Your task to perform on an android device: toggle pop-ups in chrome Image 0: 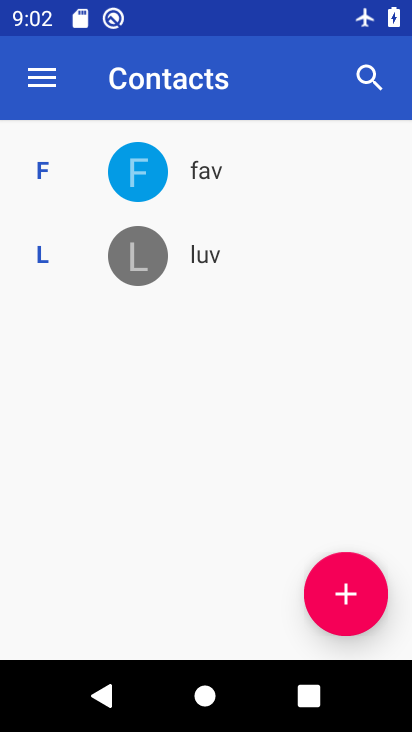
Step 0: press home button
Your task to perform on an android device: toggle pop-ups in chrome Image 1: 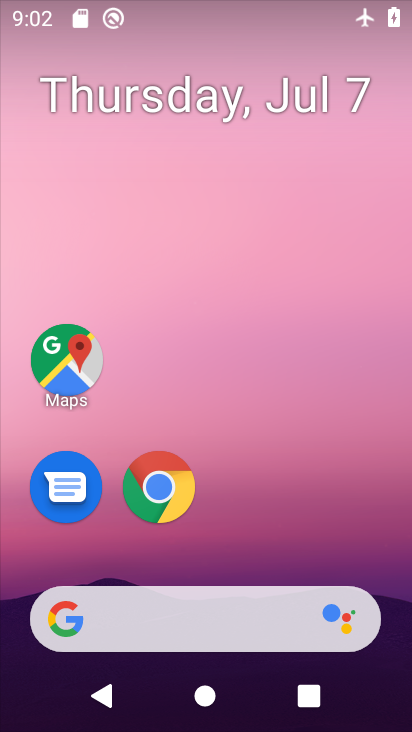
Step 1: drag from (366, 495) to (350, 128)
Your task to perform on an android device: toggle pop-ups in chrome Image 2: 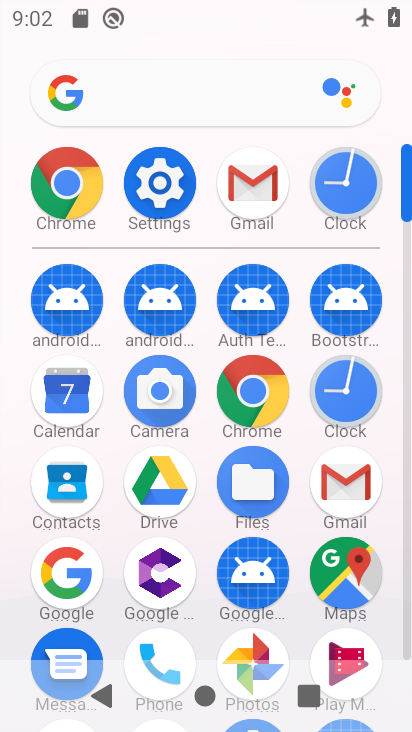
Step 2: click (257, 391)
Your task to perform on an android device: toggle pop-ups in chrome Image 3: 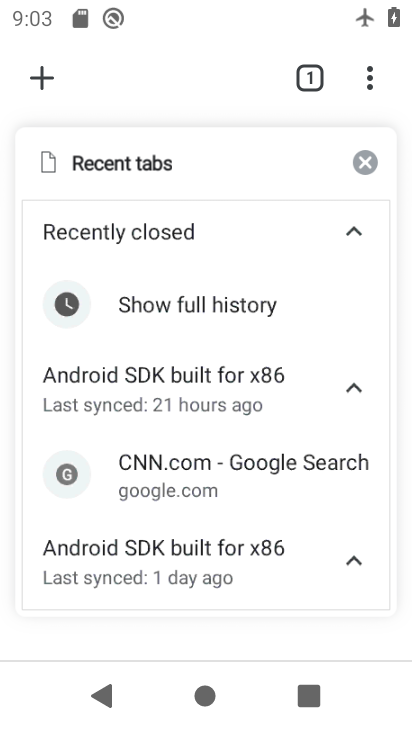
Step 3: click (371, 80)
Your task to perform on an android device: toggle pop-ups in chrome Image 4: 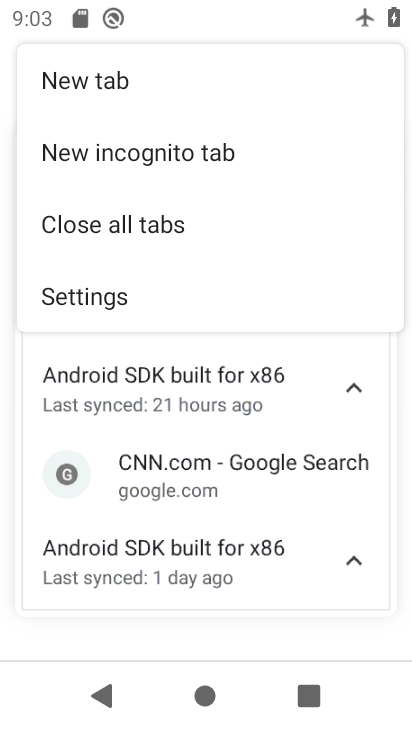
Step 4: click (185, 307)
Your task to perform on an android device: toggle pop-ups in chrome Image 5: 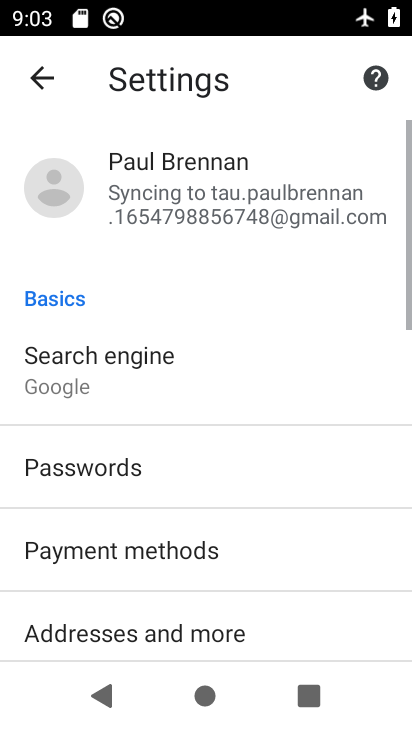
Step 5: drag from (271, 443) to (278, 337)
Your task to perform on an android device: toggle pop-ups in chrome Image 6: 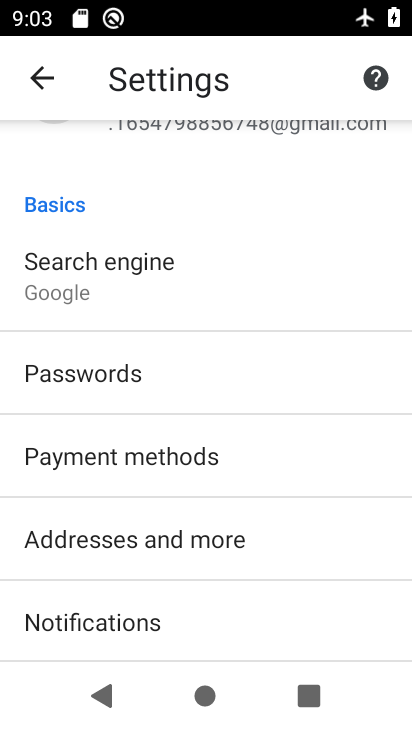
Step 6: drag from (312, 480) to (314, 396)
Your task to perform on an android device: toggle pop-ups in chrome Image 7: 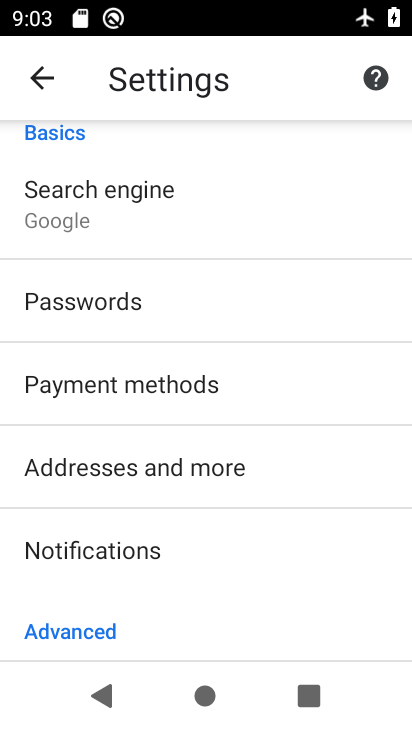
Step 7: drag from (331, 469) to (331, 357)
Your task to perform on an android device: toggle pop-ups in chrome Image 8: 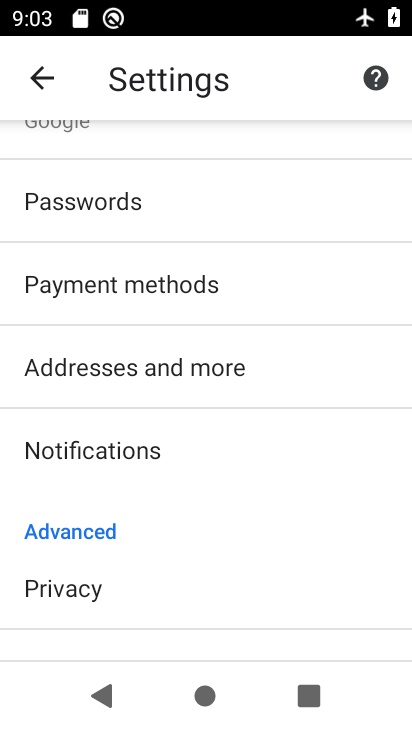
Step 8: drag from (348, 477) to (349, 392)
Your task to perform on an android device: toggle pop-ups in chrome Image 9: 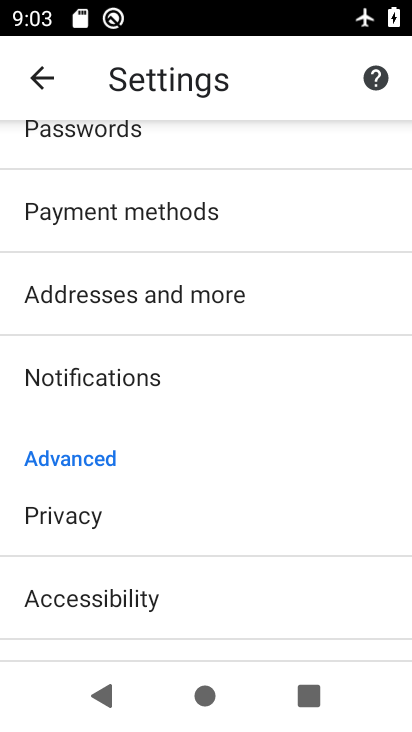
Step 9: drag from (351, 485) to (350, 398)
Your task to perform on an android device: toggle pop-ups in chrome Image 10: 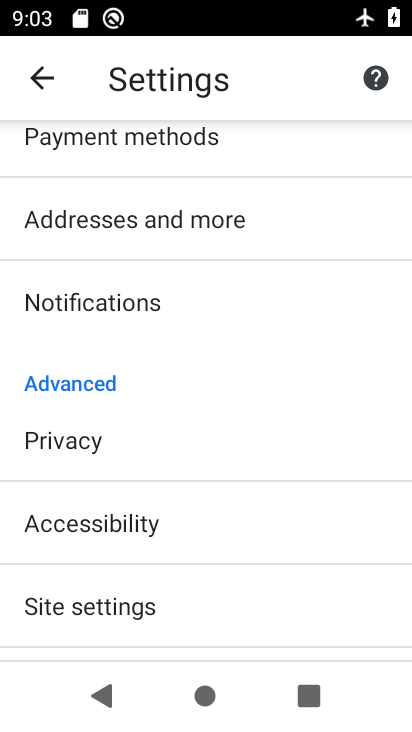
Step 10: drag from (321, 481) to (320, 384)
Your task to perform on an android device: toggle pop-ups in chrome Image 11: 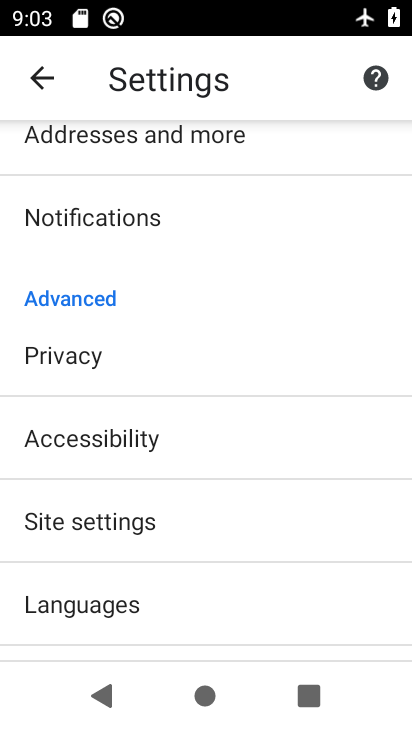
Step 11: drag from (316, 489) to (313, 366)
Your task to perform on an android device: toggle pop-ups in chrome Image 12: 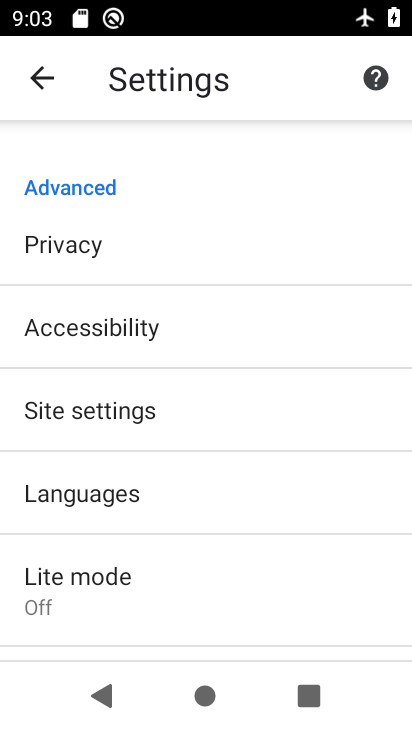
Step 12: drag from (320, 480) to (319, 239)
Your task to perform on an android device: toggle pop-ups in chrome Image 13: 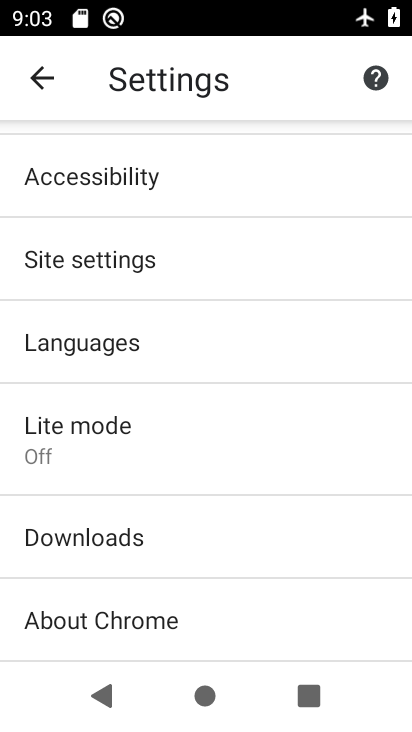
Step 13: click (286, 257)
Your task to perform on an android device: toggle pop-ups in chrome Image 14: 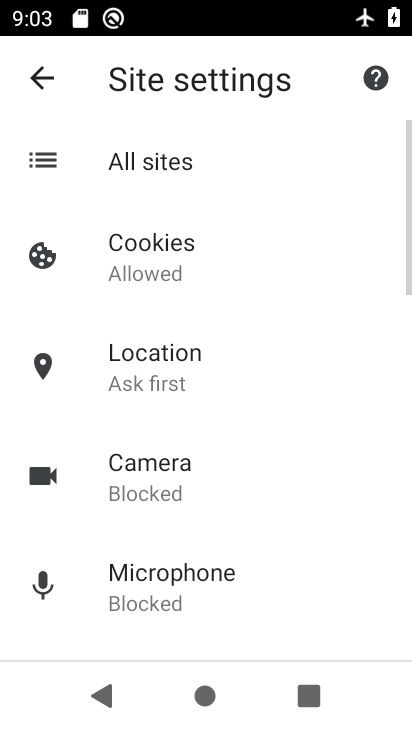
Step 14: drag from (291, 405) to (304, 307)
Your task to perform on an android device: toggle pop-ups in chrome Image 15: 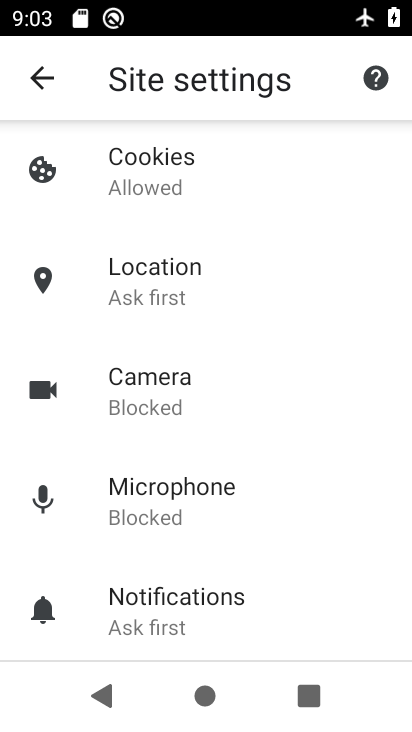
Step 15: drag from (339, 432) to (339, 307)
Your task to perform on an android device: toggle pop-ups in chrome Image 16: 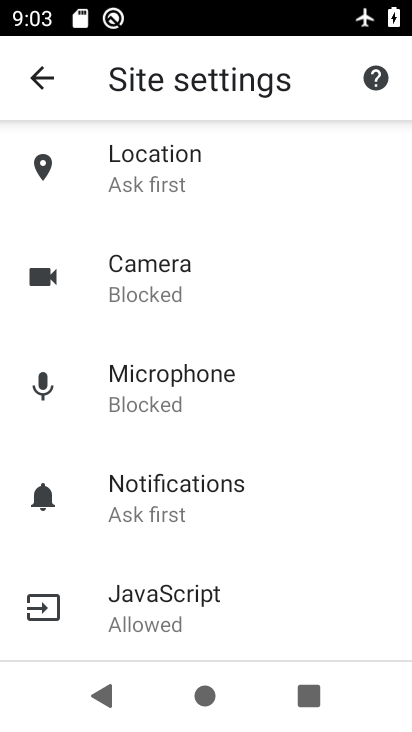
Step 16: drag from (359, 443) to (358, 332)
Your task to perform on an android device: toggle pop-ups in chrome Image 17: 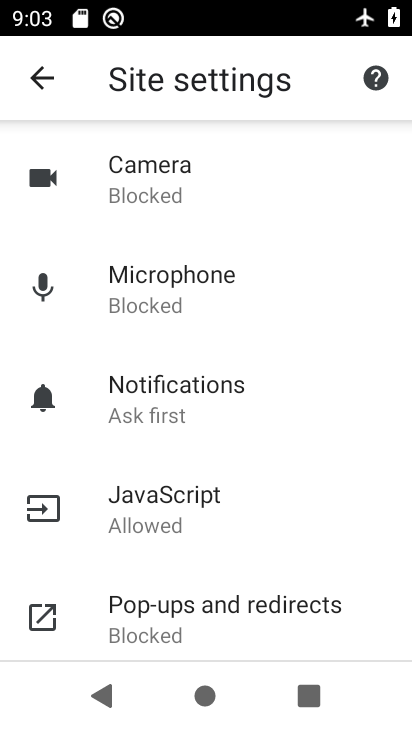
Step 17: drag from (342, 455) to (341, 359)
Your task to perform on an android device: toggle pop-ups in chrome Image 18: 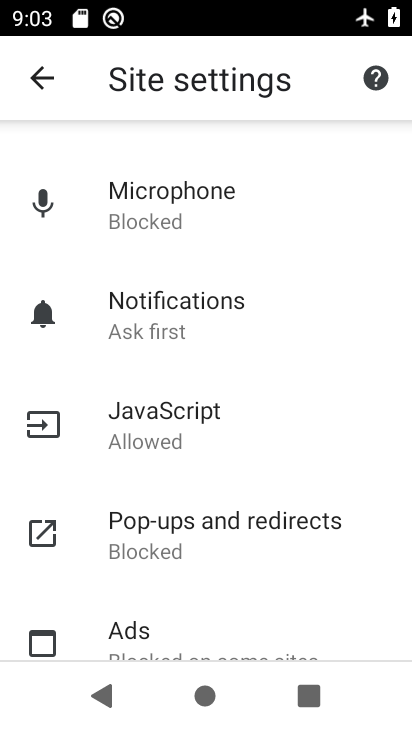
Step 18: drag from (337, 402) to (342, 316)
Your task to perform on an android device: toggle pop-ups in chrome Image 19: 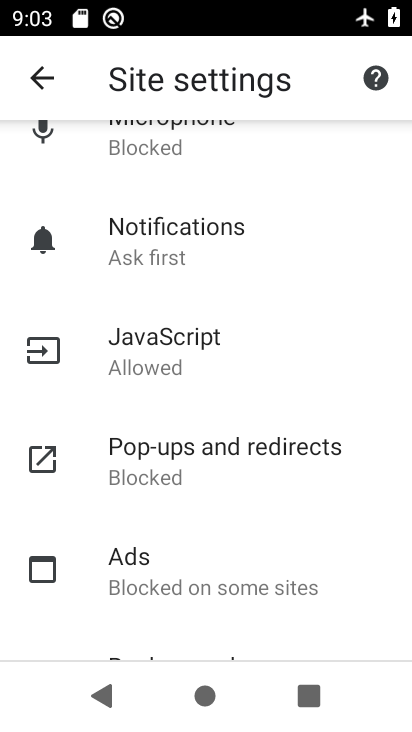
Step 19: drag from (342, 480) to (354, 343)
Your task to perform on an android device: toggle pop-ups in chrome Image 20: 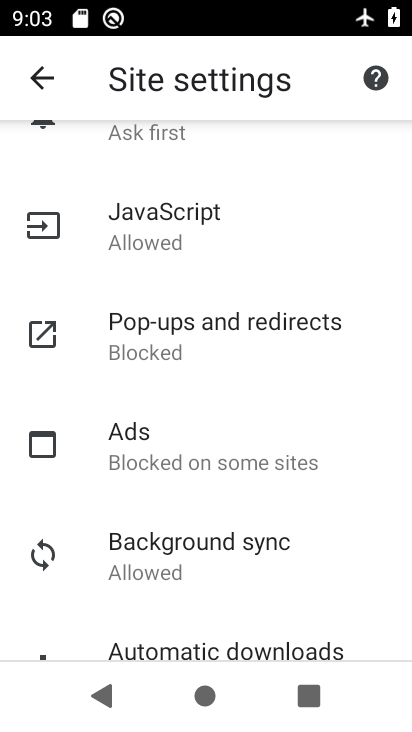
Step 20: click (277, 337)
Your task to perform on an android device: toggle pop-ups in chrome Image 21: 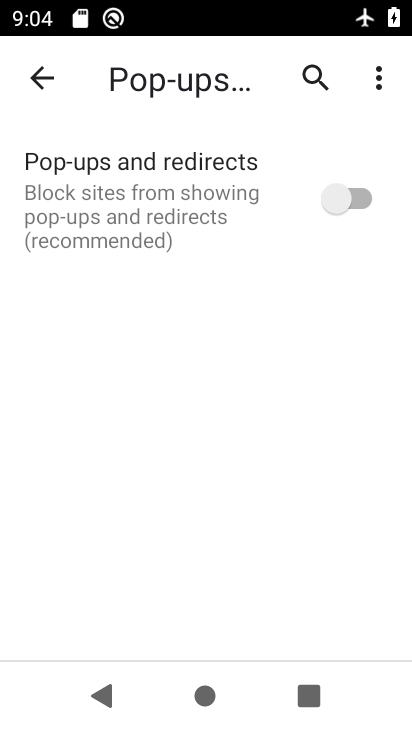
Step 21: click (332, 192)
Your task to perform on an android device: toggle pop-ups in chrome Image 22: 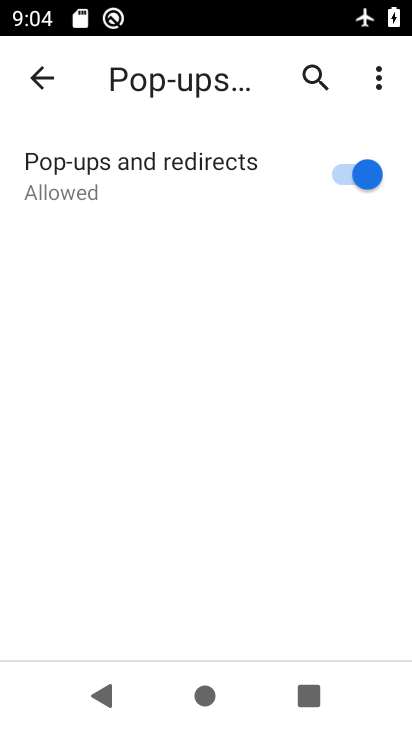
Step 22: task complete